Your task to perform on an android device: Go to accessibility settings Image 0: 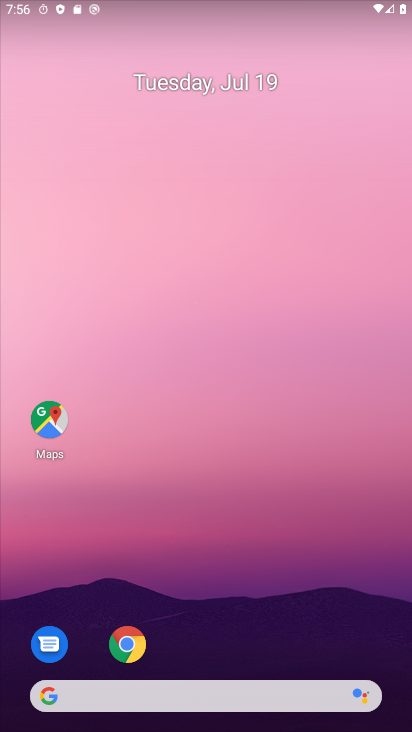
Step 0: drag from (77, 563) to (267, 154)
Your task to perform on an android device: Go to accessibility settings Image 1: 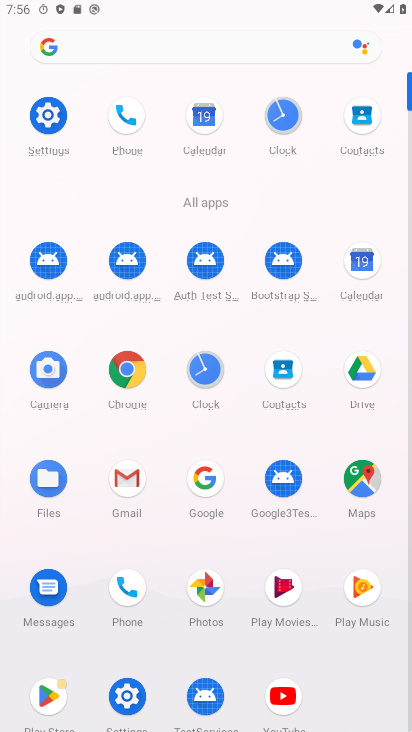
Step 1: click (126, 690)
Your task to perform on an android device: Go to accessibility settings Image 2: 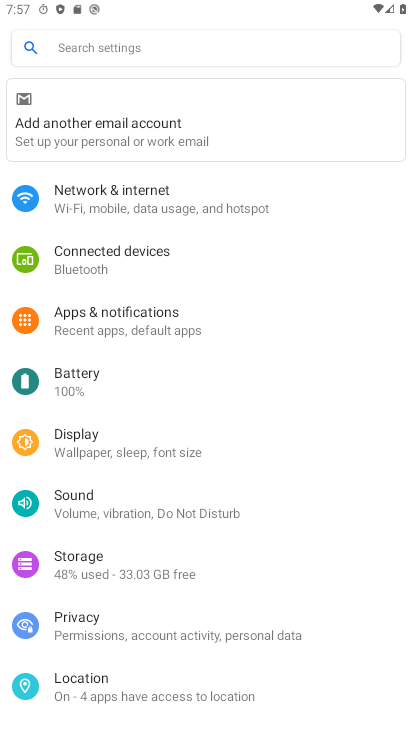
Step 2: drag from (319, 547) to (339, 249)
Your task to perform on an android device: Go to accessibility settings Image 3: 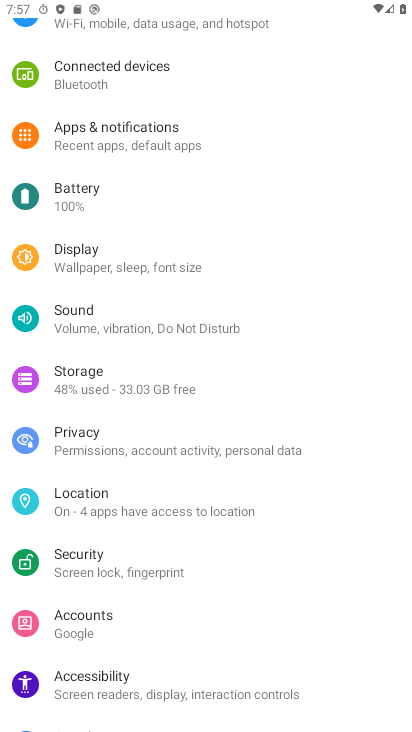
Step 3: click (91, 687)
Your task to perform on an android device: Go to accessibility settings Image 4: 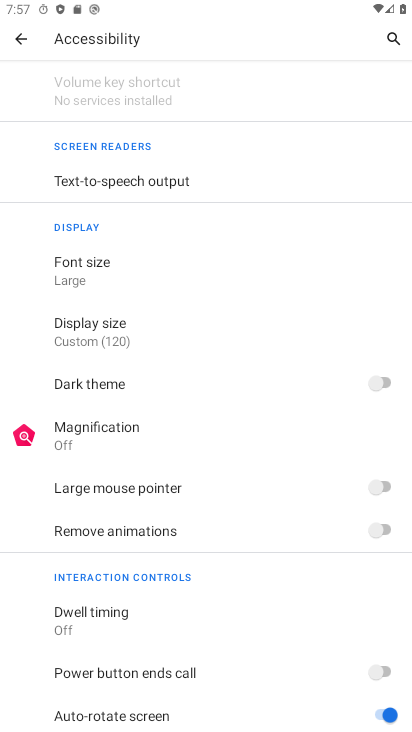
Step 4: task complete